Your task to perform on an android device: Go to Maps Image 0: 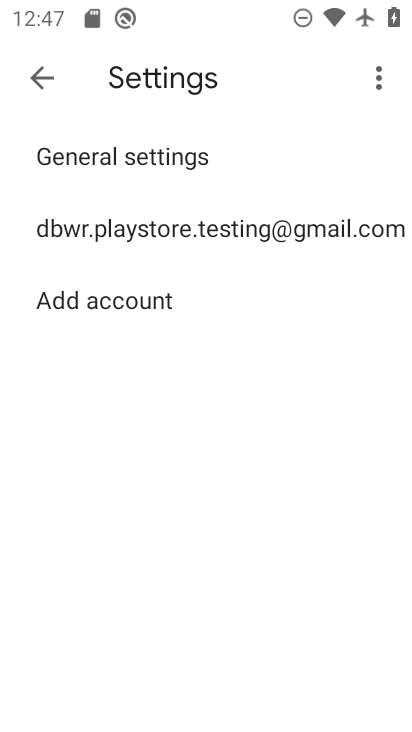
Step 0: press home button
Your task to perform on an android device: Go to Maps Image 1: 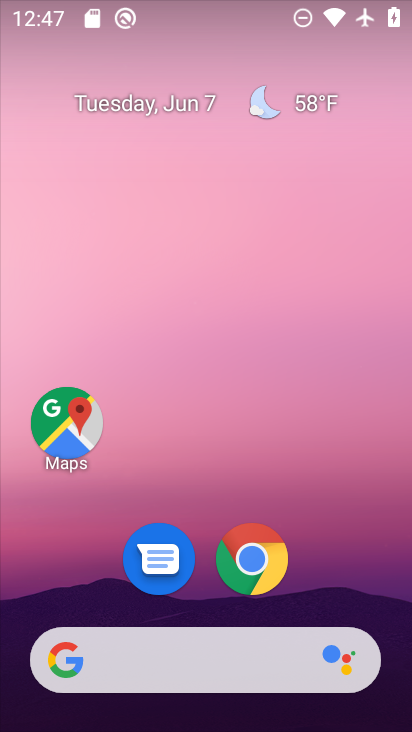
Step 1: click (67, 424)
Your task to perform on an android device: Go to Maps Image 2: 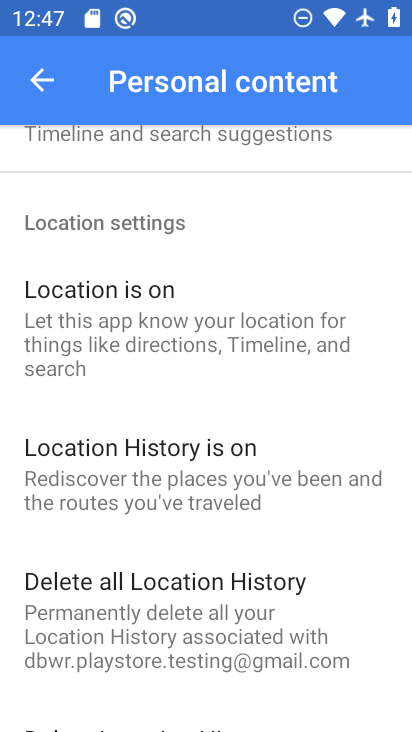
Step 2: task complete